Your task to perform on an android device: Open Youtube and go to "Your channel" Image 0: 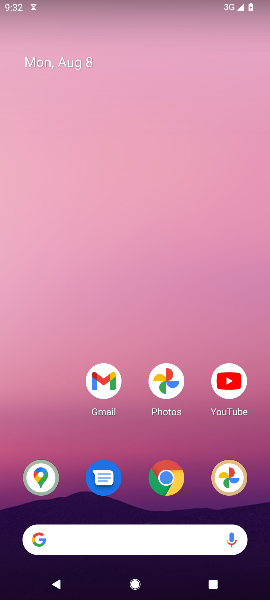
Step 0: click (236, 372)
Your task to perform on an android device: Open Youtube and go to "Your channel" Image 1: 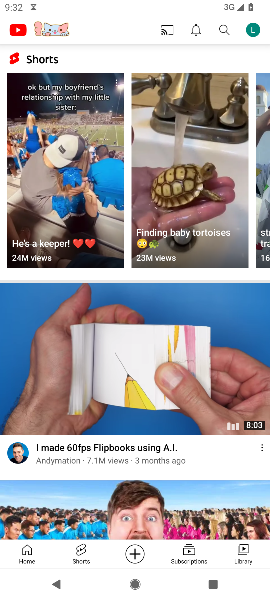
Step 1: click (250, 34)
Your task to perform on an android device: Open Youtube and go to "Your channel" Image 2: 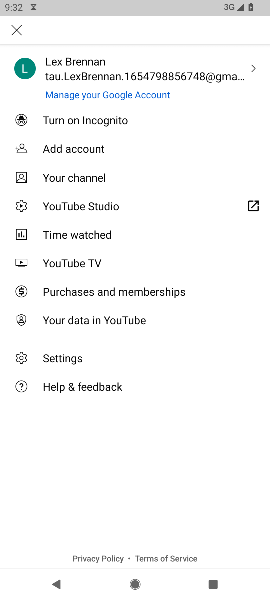
Step 2: click (94, 174)
Your task to perform on an android device: Open Youtube and go to "Your channel" Image 3: 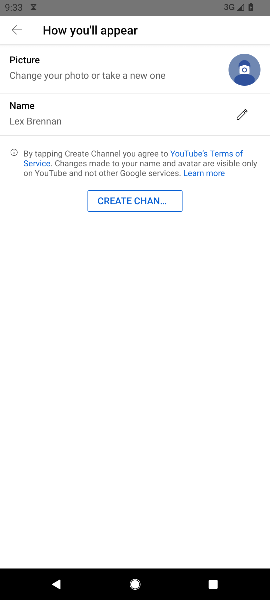
Step 3: task complete